Your task to perform on an android device: manage bookmarks in the chrome app Image 0: 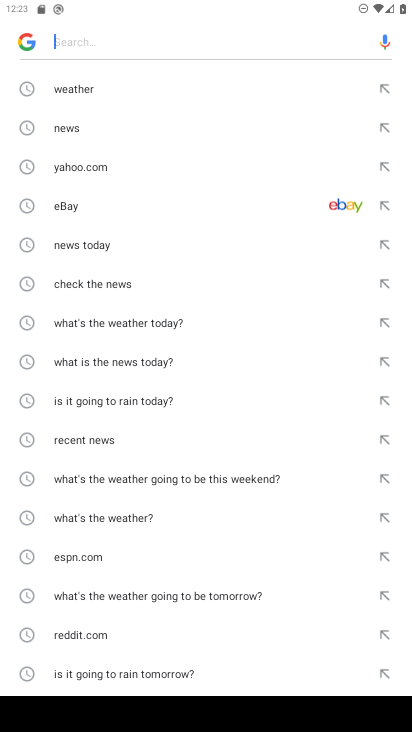
Step 0: press home button
Your task to perform on an android device: manage bookmarks in the chrome app Image 1: 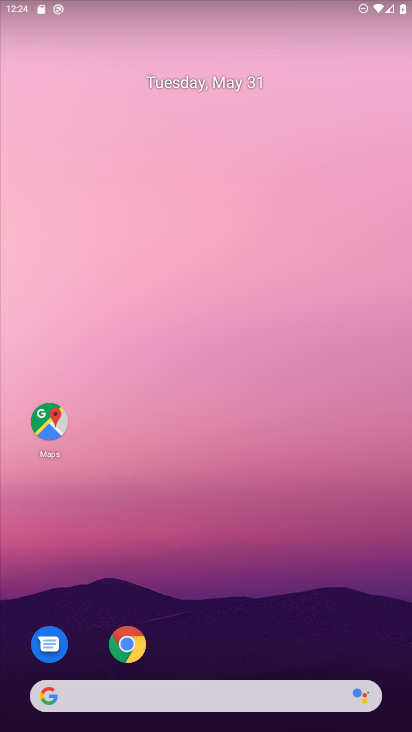
Step 1: drag from (221, 557) to (231, 36)
Your task to perform on an android device: manage bookmarks in the chrome app Image 2: 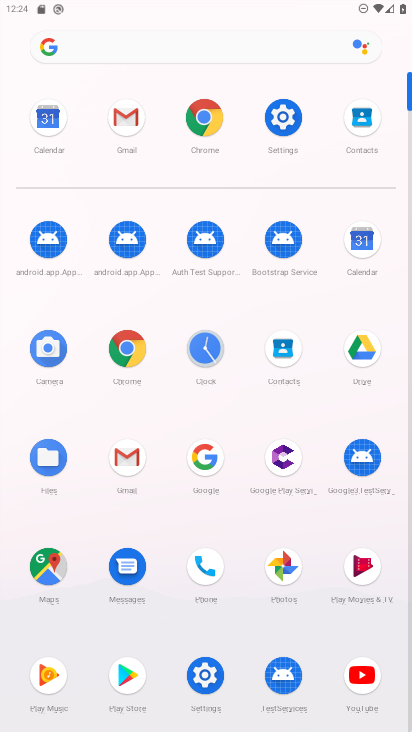
Step 2: click (129, 339)
Your task to perform on an android device: manage bookmarks in the chrome app Image 3: 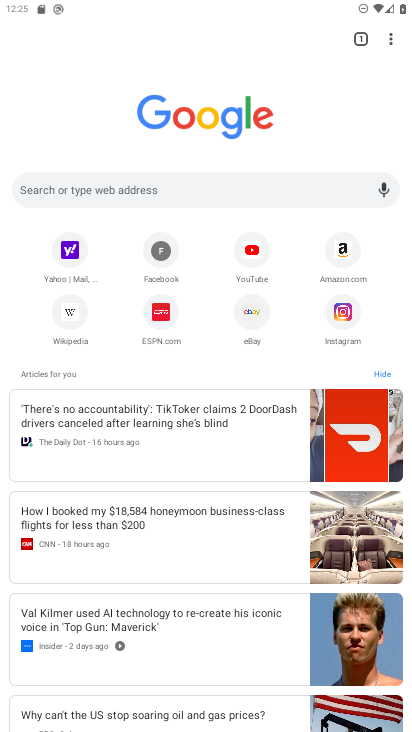
Step 3: task complete